Your task to perform on an android device: Search for Mexican restaurants on Maps Image 0: 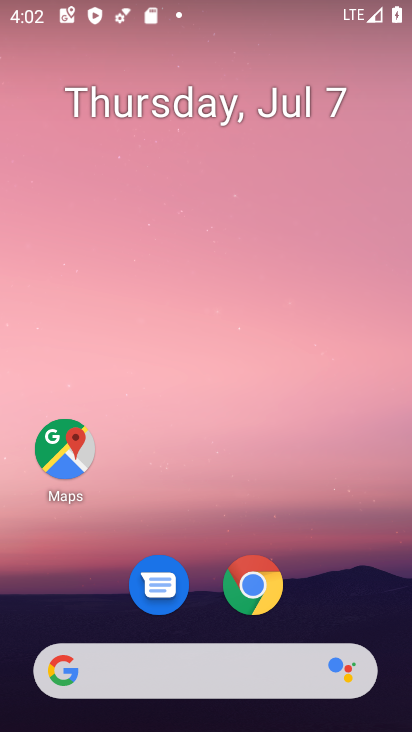
Step 0: click (79, 439)
Your task to perform on an android device: Search for Mexican restaurants on Maps Image 1: 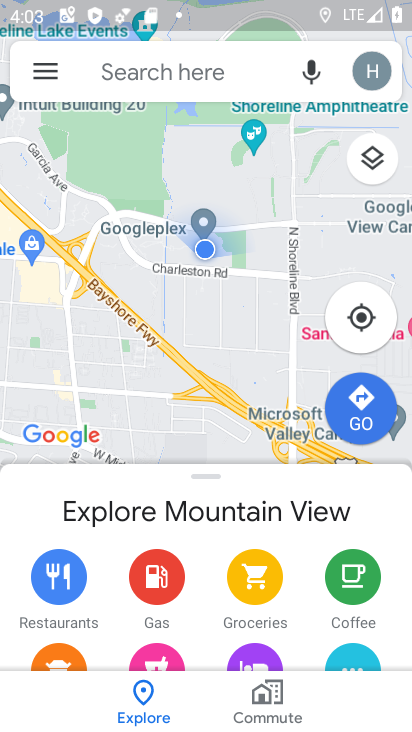
Step 1: click (174, 65)
Your task to perform on an android device: Search for Mexican restaurants on Maps Image 2: 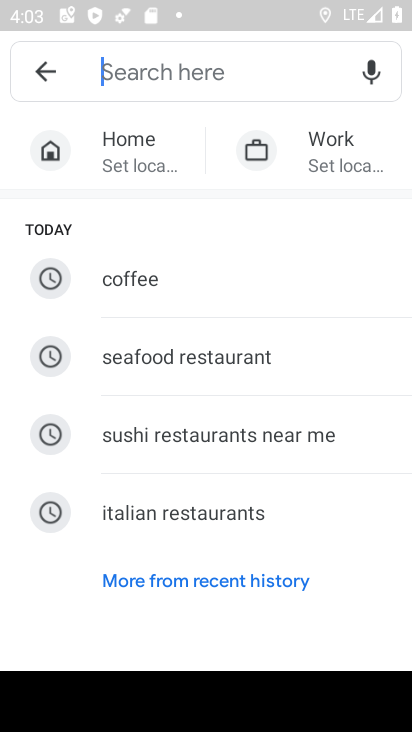
Step 2: type "mexican restaurants"
Your task to perform on an android device: Search for Mexican restaurants on Maps Image 3: 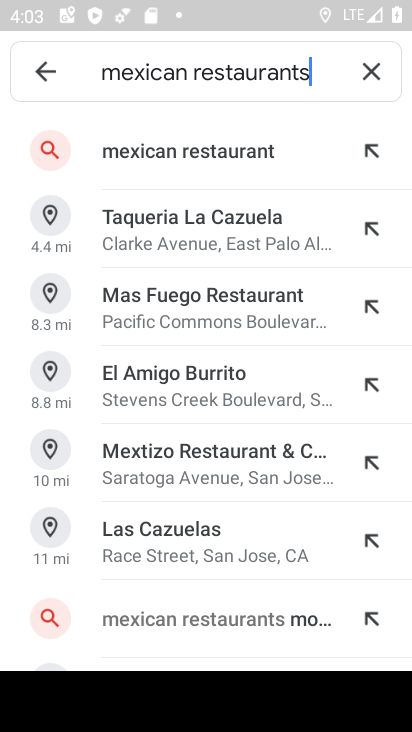
Step 3: click (237, 155)
Your task to perform on an android device: Search for Mexican restaurants on Maps Image 4: 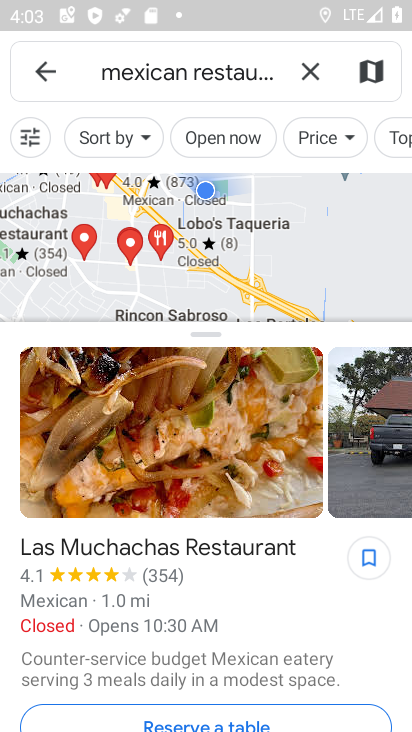
Step 4: task complete